Your task to perform on an android device: turn off translation in the chrome app Image 0: 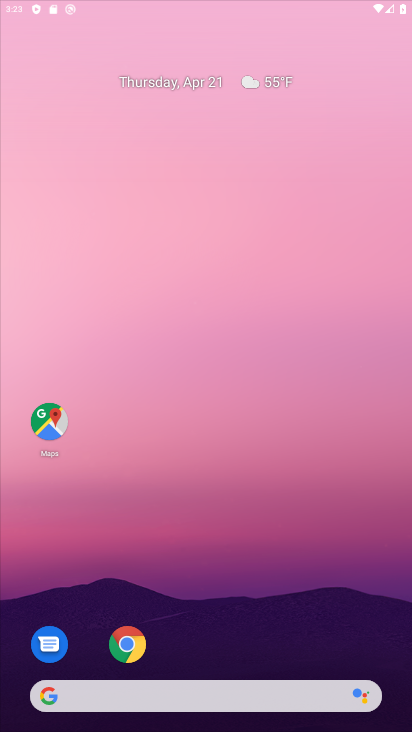
Step 0: click (154, 6)
Your task to perform on an android device: turn off translation in the chrome app Image 1: 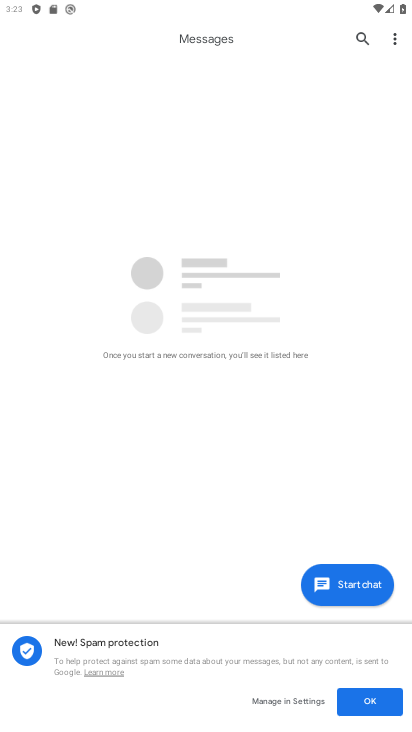
Step 1: press home button
Your task to perform on an android device: turn off translation in the chrome app Image 2: 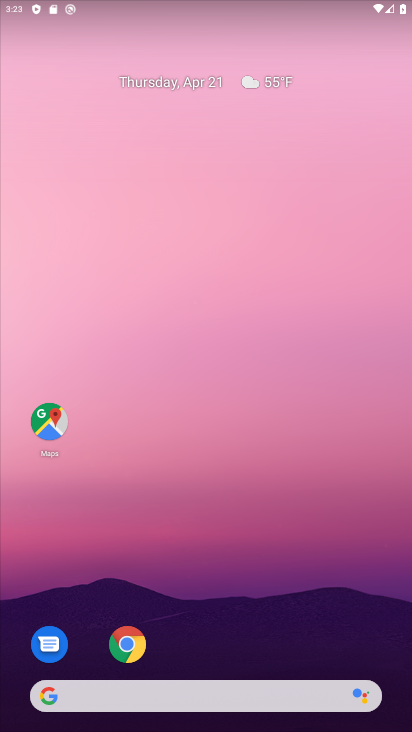
Step 2: drag from (195, 672) to (262, 71)
Your task to perform on an android device: turn off translation in the chrome app Image 3: 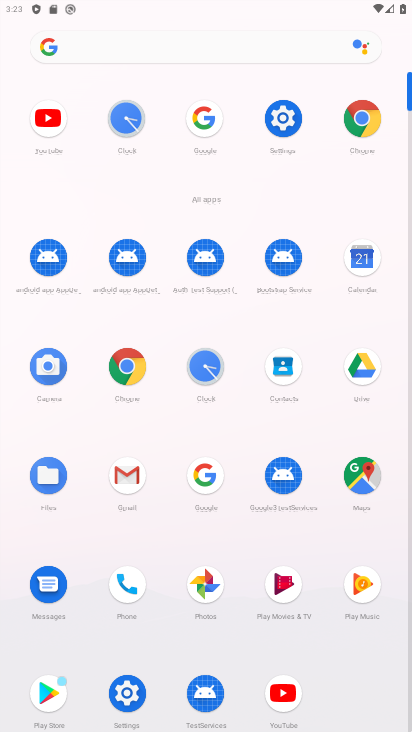
Step 3: click (124, 378)
Your task to perform on an android device: turn off translation in the chrome app Image 4: 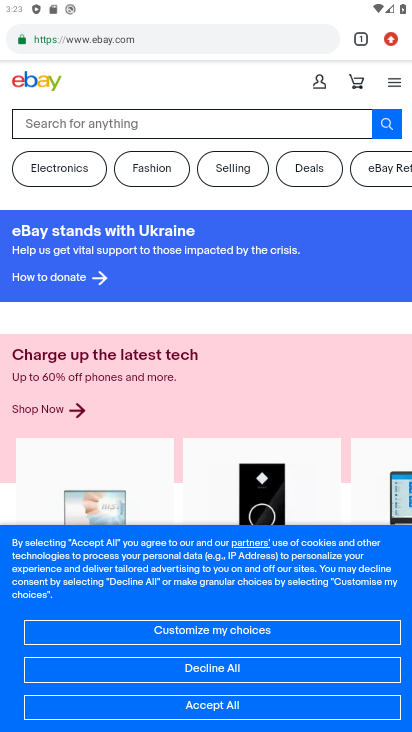
Step 4: drag from (392, 36) to (267, 509)
Your task to perform on an android device: turn off translation in the chrome app Image 5: 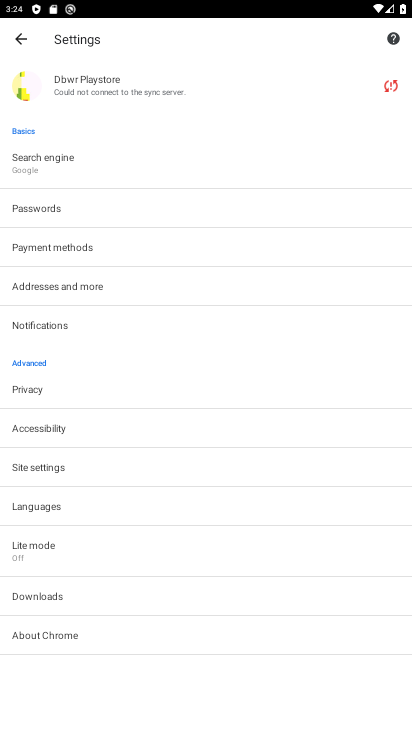
Step 5: click (64, 498)
Your task to perform on an android device: turn off translation in the chrome app Image 6: 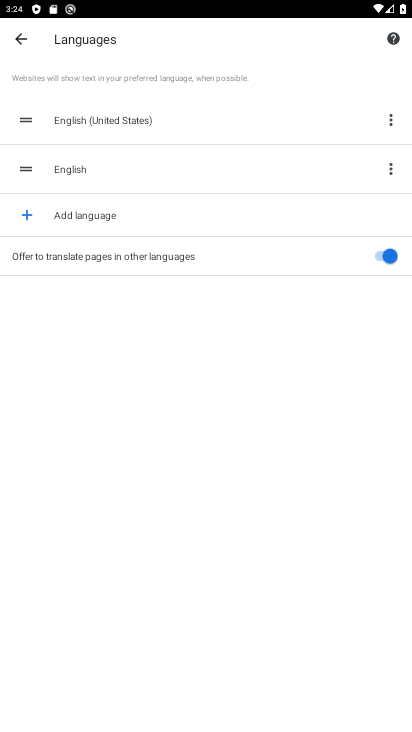
Step 6: click (375, 251)
Your task to perform on an android device: turn off translation in the chrome app Image 7: 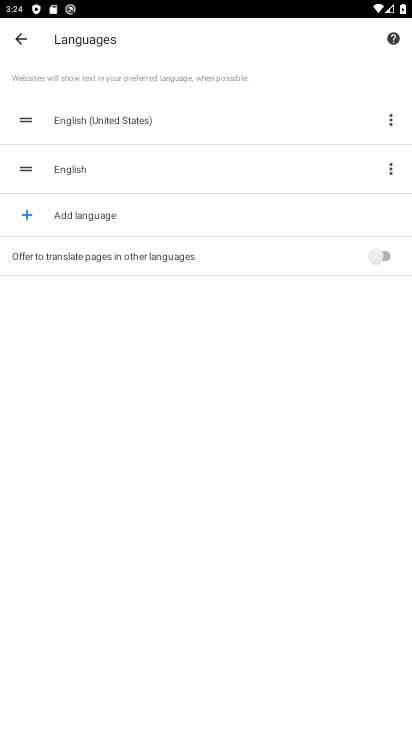
Step 7: task complete